Your task to perform on an android device: Search for razer thresher on newegg.com, select the first entry, add it to the cart, then select checkout. Image 0: 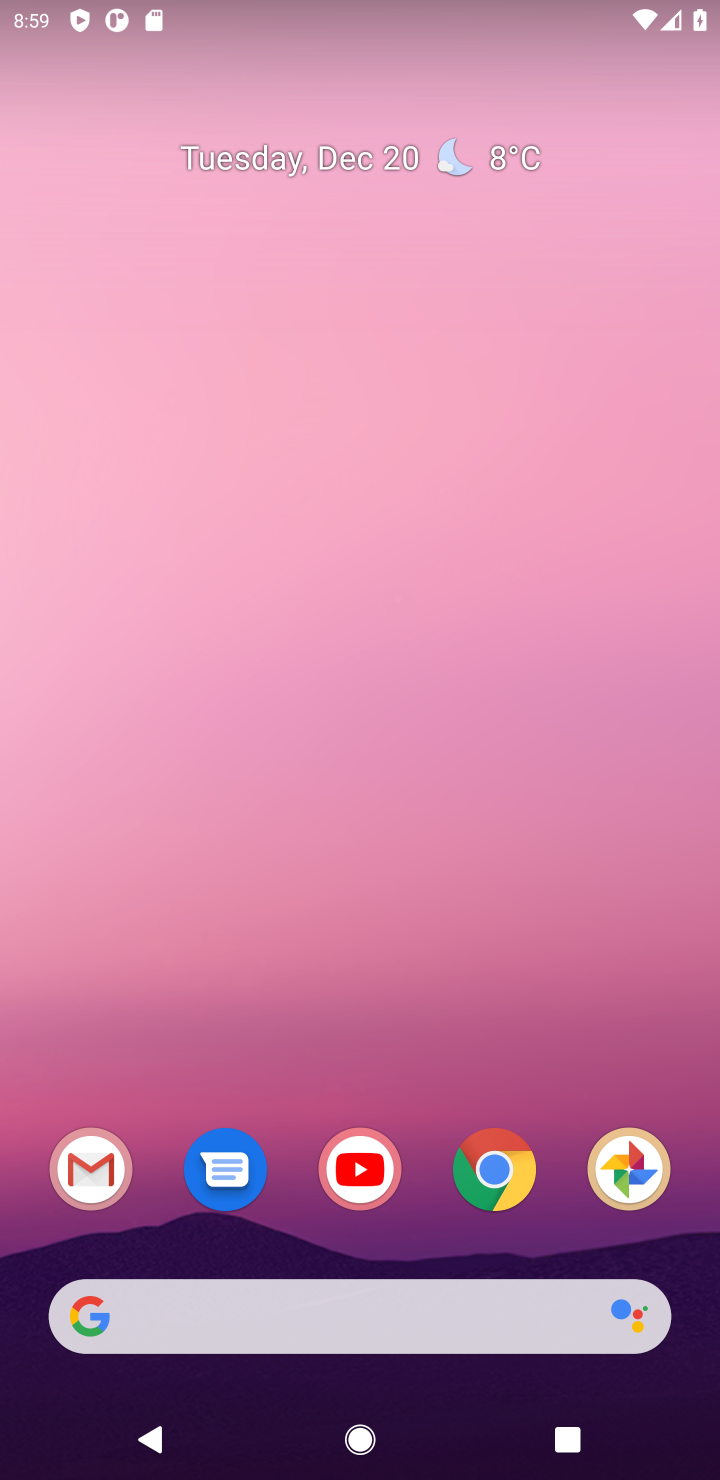
Step 0: click (483, 1156)
Your task to perform on an android device: Search for razer thresher on newegg.com, select the first entry, add it to the cart, then select checkout. Image 1: 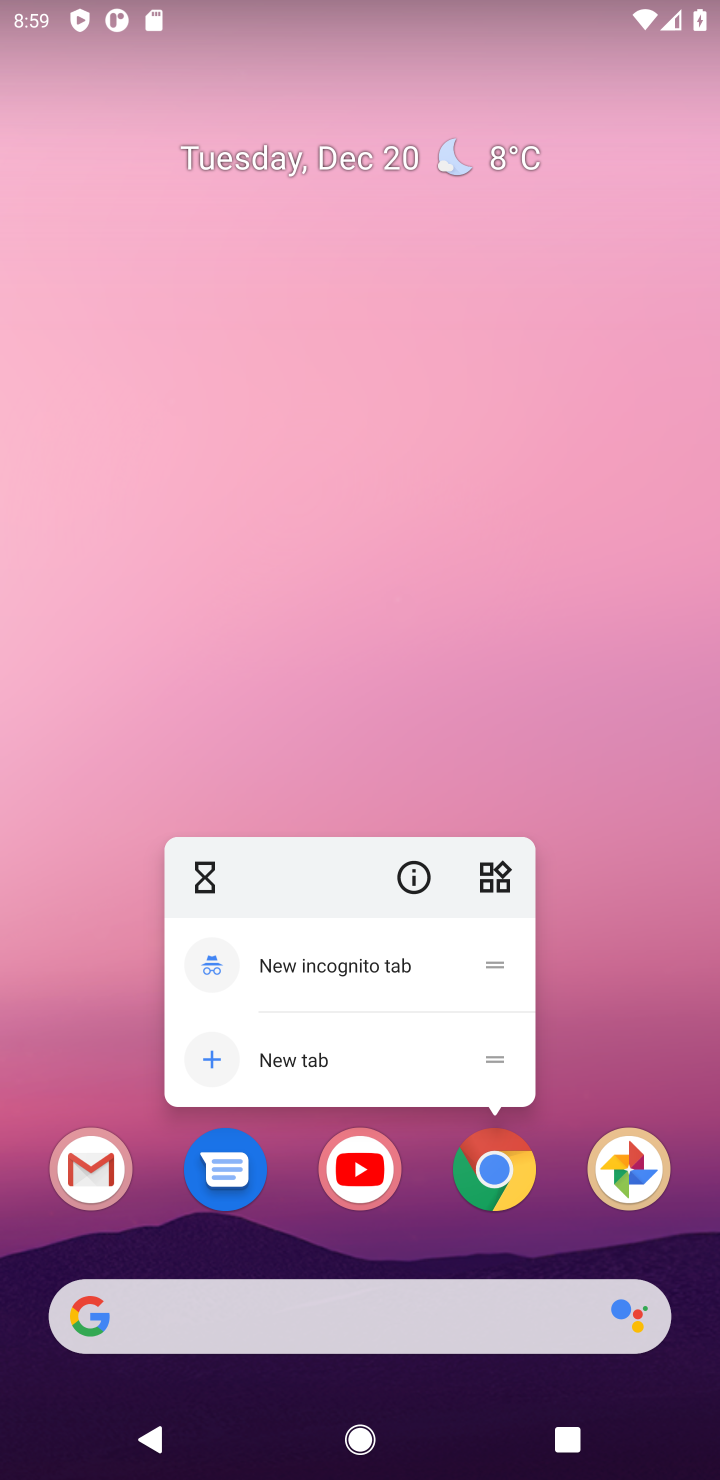
Step 1: click (483, 1156)
Your task to perform on an android device: Search for razer thresher on newegg.com, select the first entry, add it to the cart, then select checkout. Image 2: 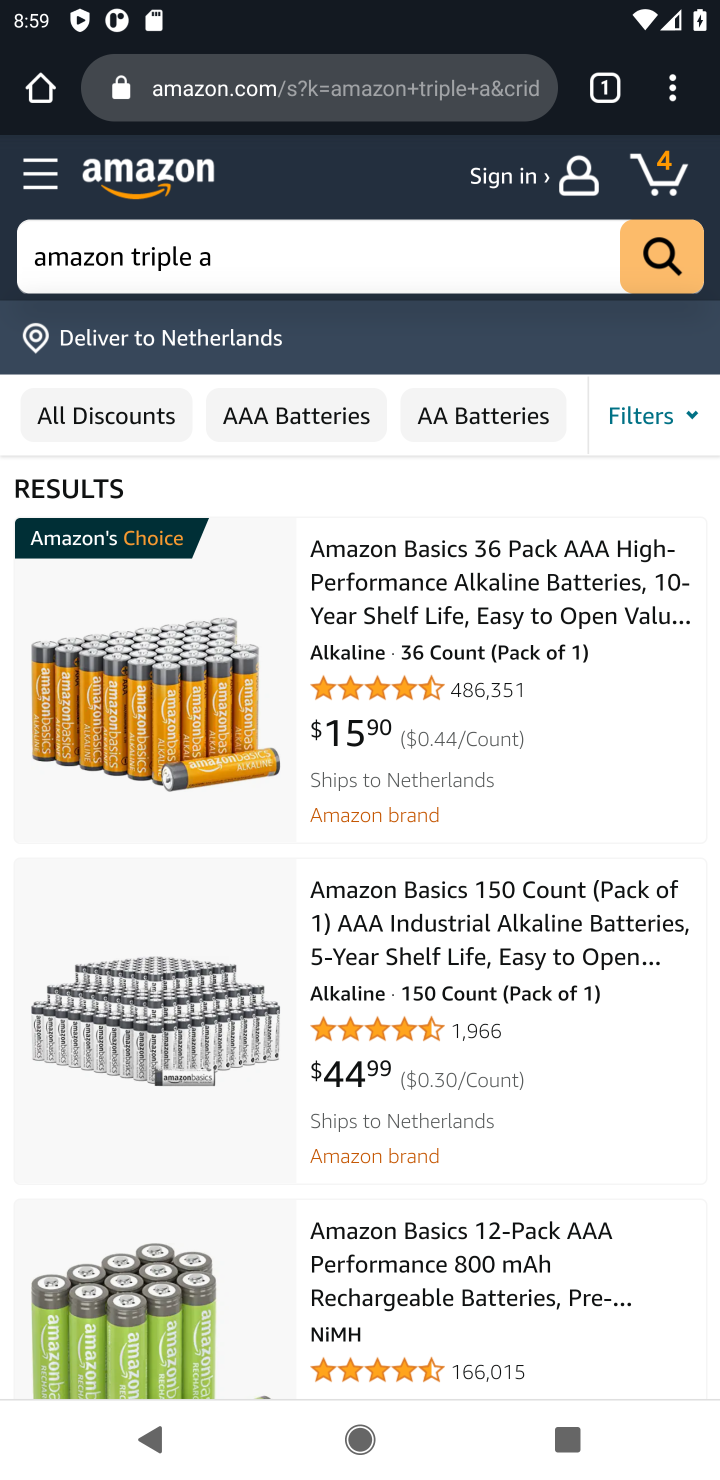
Step 2: click (435, 101)
Your task to perform on an android device: Search for razer thresher on newegg.com, select the first entry, add it to the cart, then select checkout. Image 3: 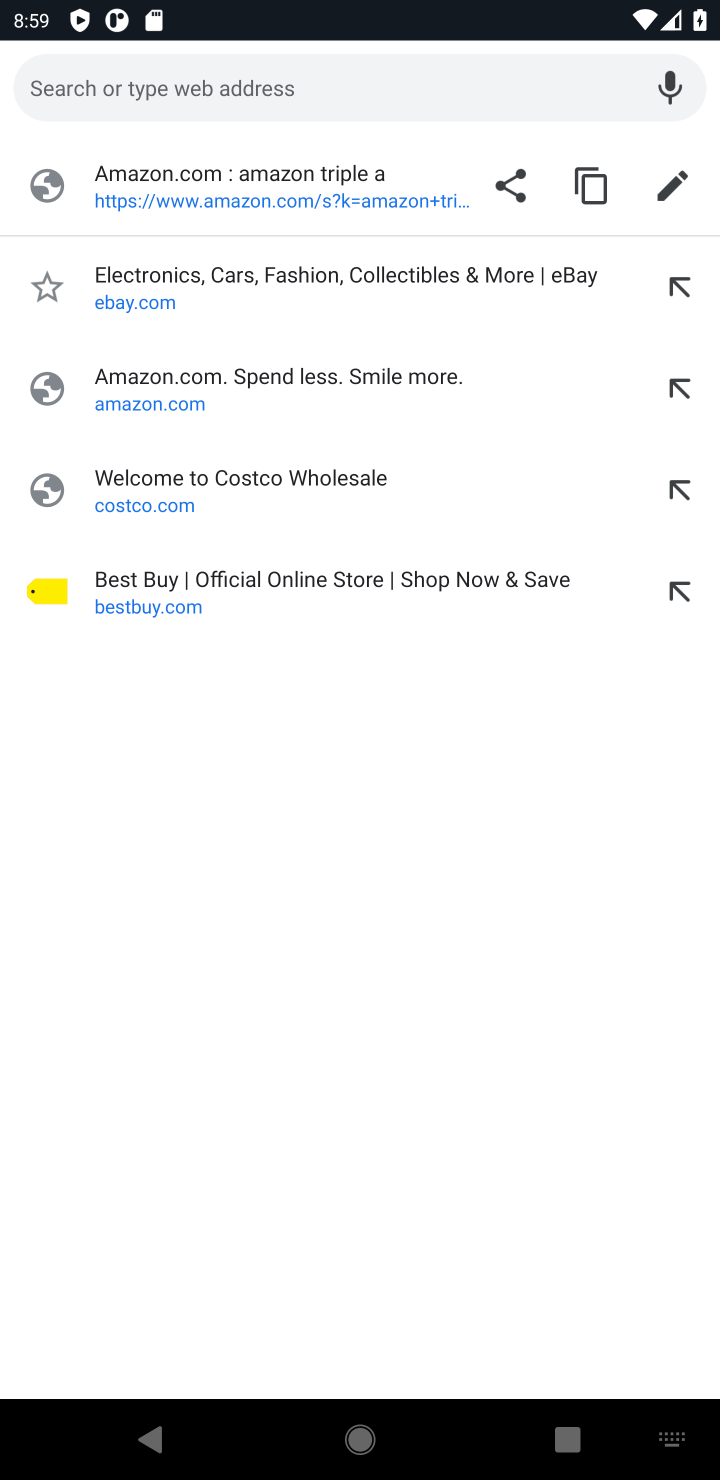
Step 3: type "newegg"
Your task to perform on an android device: Search for razer thresher on newegg.com, select the first entry, add it to the cart, then select checkout. Image 4: 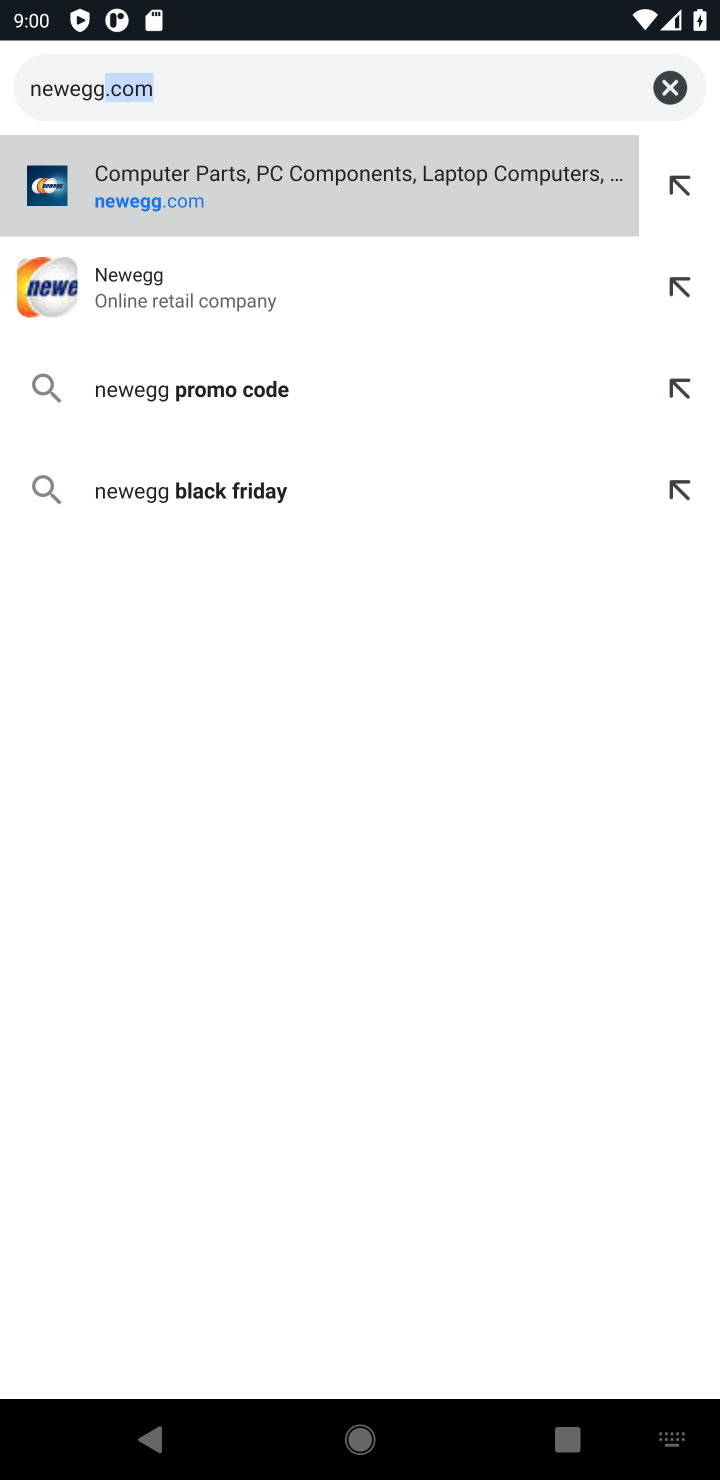
Step 4: click (270, 231)
Your task to perform on an android device: Search for razer thresher on newegg.com, select the first entry, add it to the cart, then select checkout. Image 5: 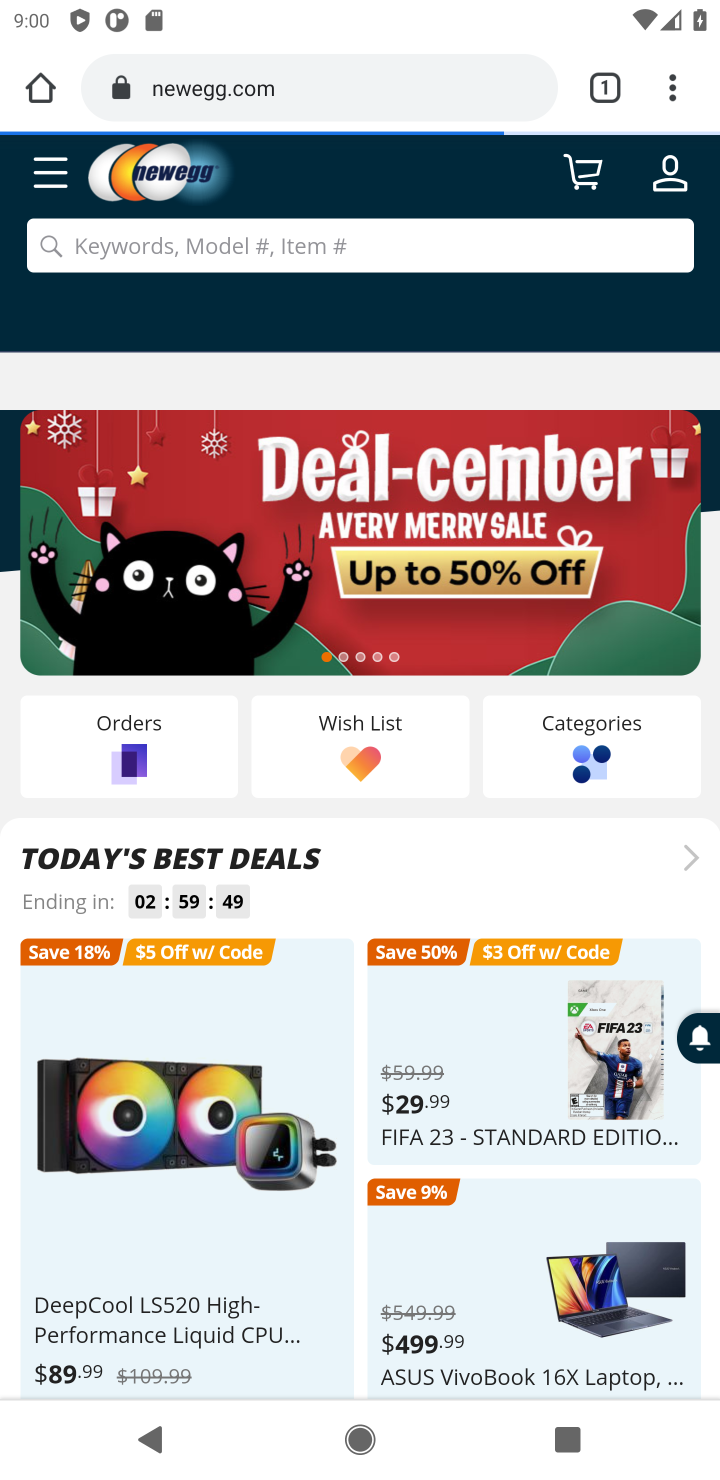
Step 5: click (258, 233)
Your task to perform on an android device: Search for razer thresher on newegg.com, select the first entry, add it to the cart, then select checkout. Image 6: 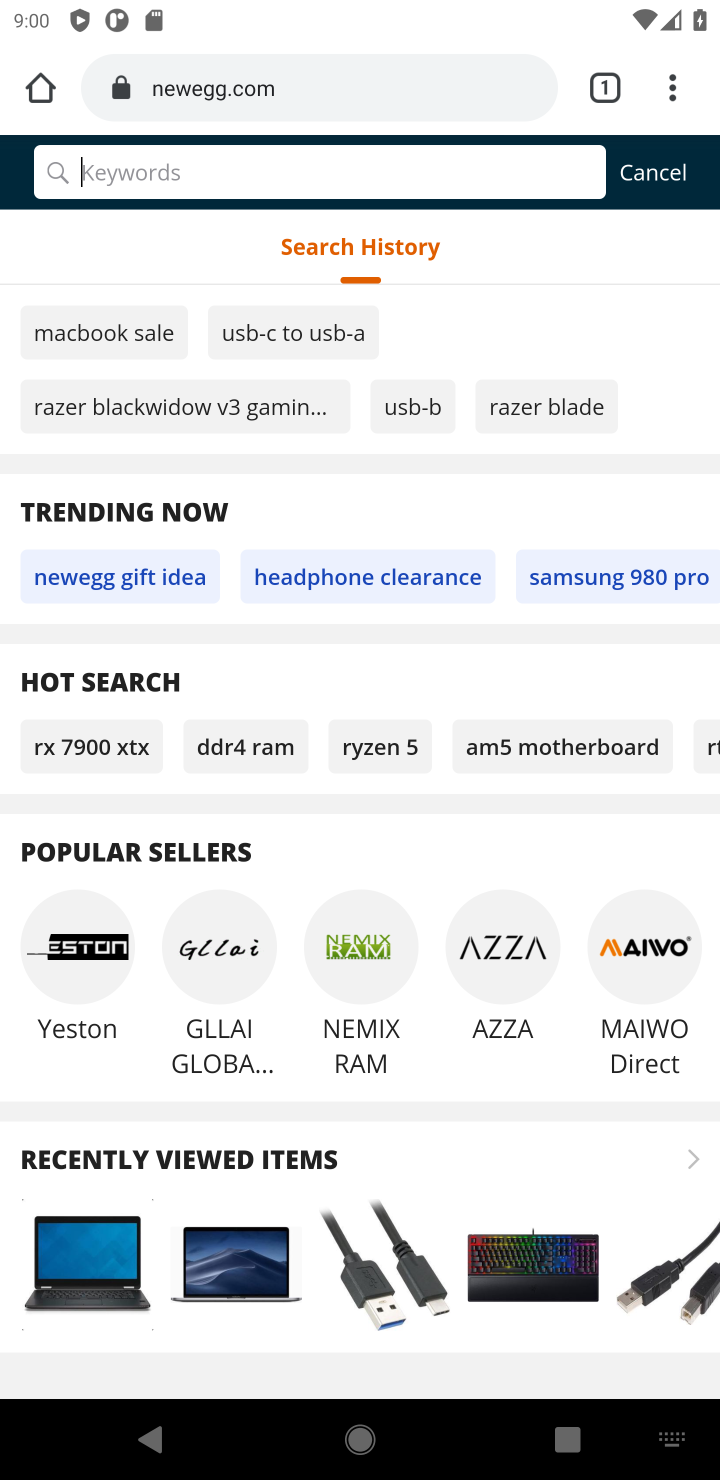
Step 6: type "razer thresher"
Your task to perform on an android device: Search for razer thresher on newegg.com, select the first entry, add it to the cart, then select checkout. Image 7: 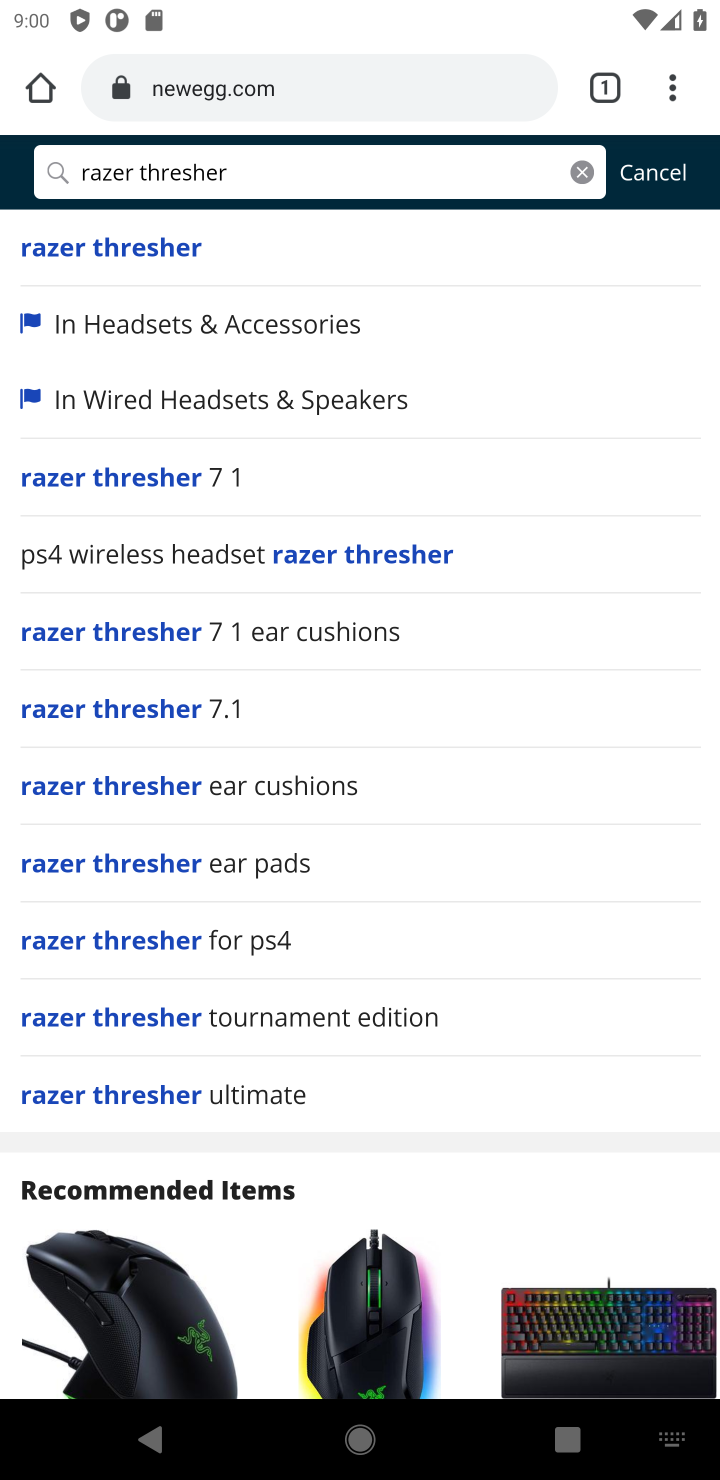
Step 7: click (160, 237)
Your task to perform on an android device: Search for razer thresher on newegg.com, select the first entry, add it to the cart, then select checkout. Image 8: 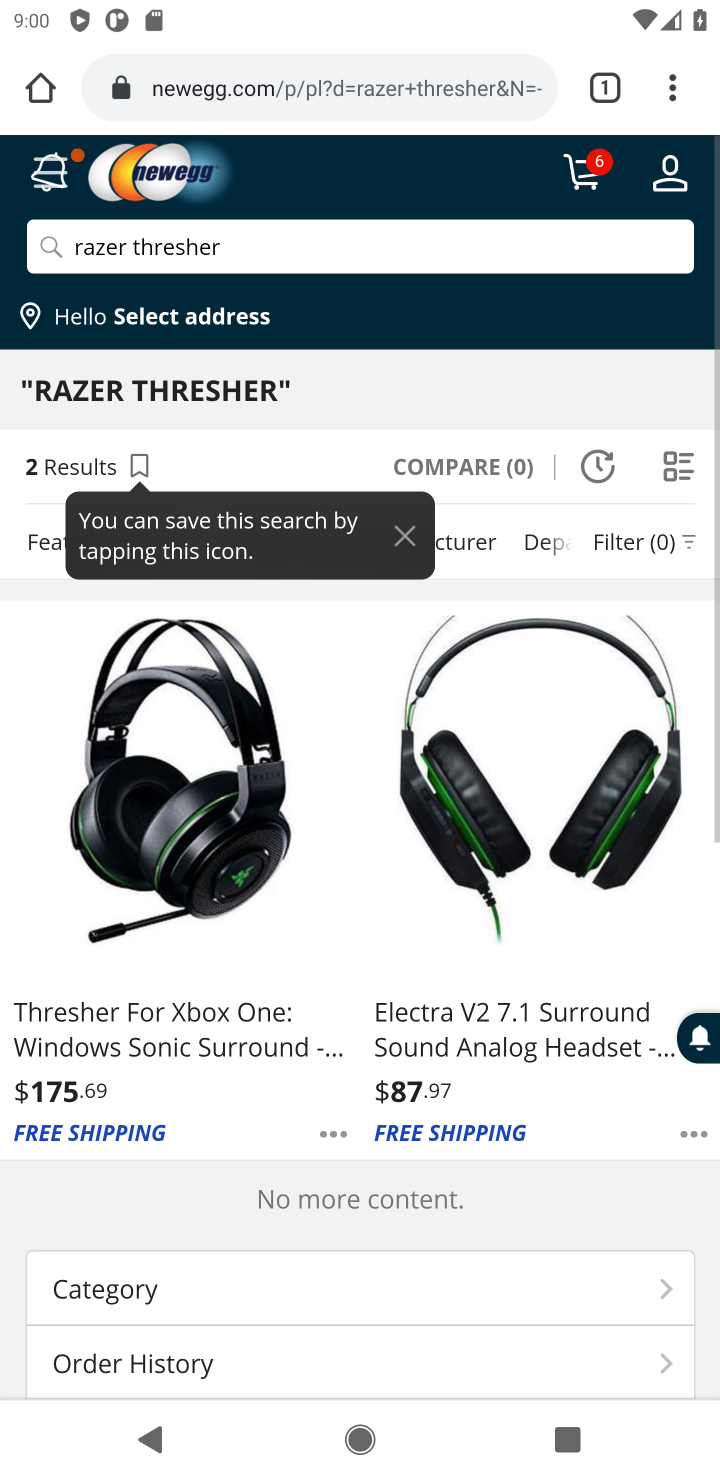
Step 8: click (175, 1034)
Your task to perform on an android device: Search for razer thresher on newegg.com, select the first entry, add it to the cart, then select checkout. Image 9: 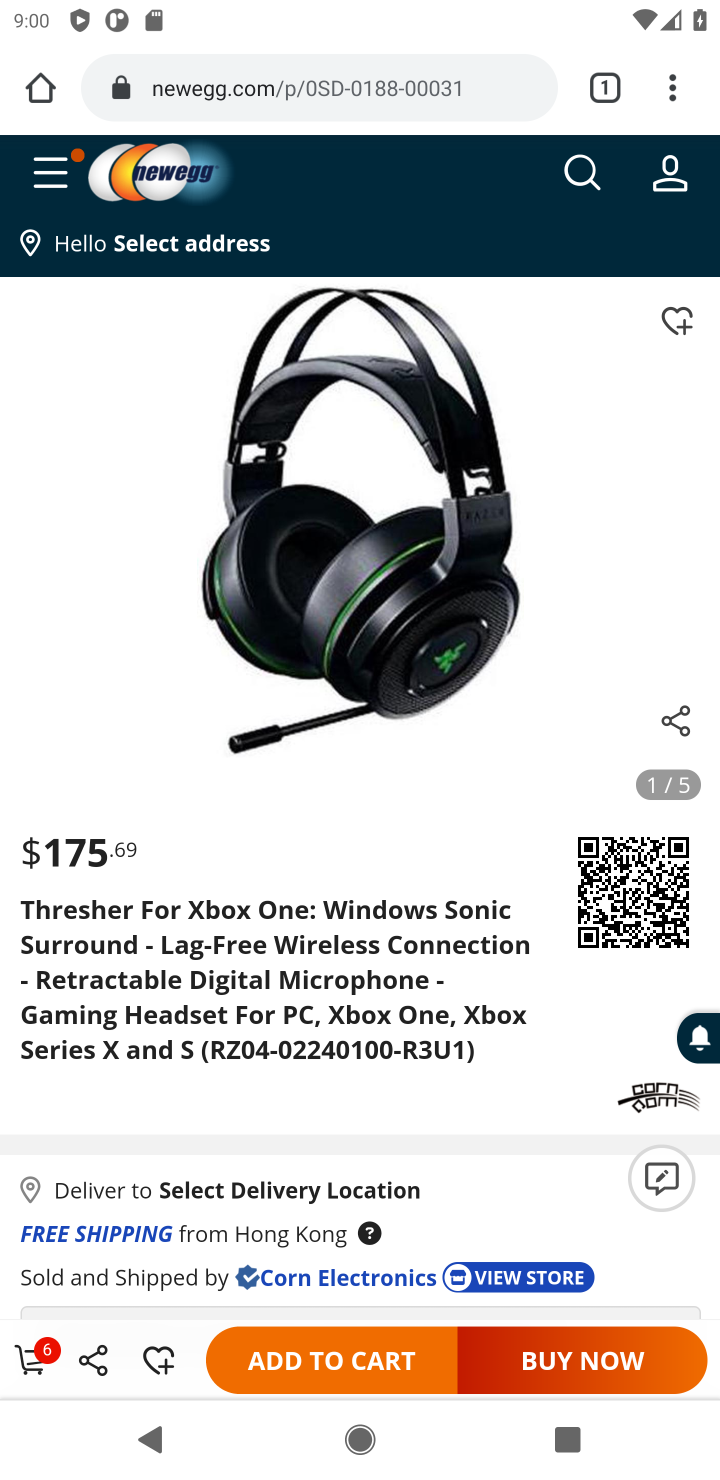
Step 9: click (369, 1378)
Your task to perform on an android device: Search for razer thresher on newegg.com, select the first entry, add it to the cart, then select checkout. Image 10: 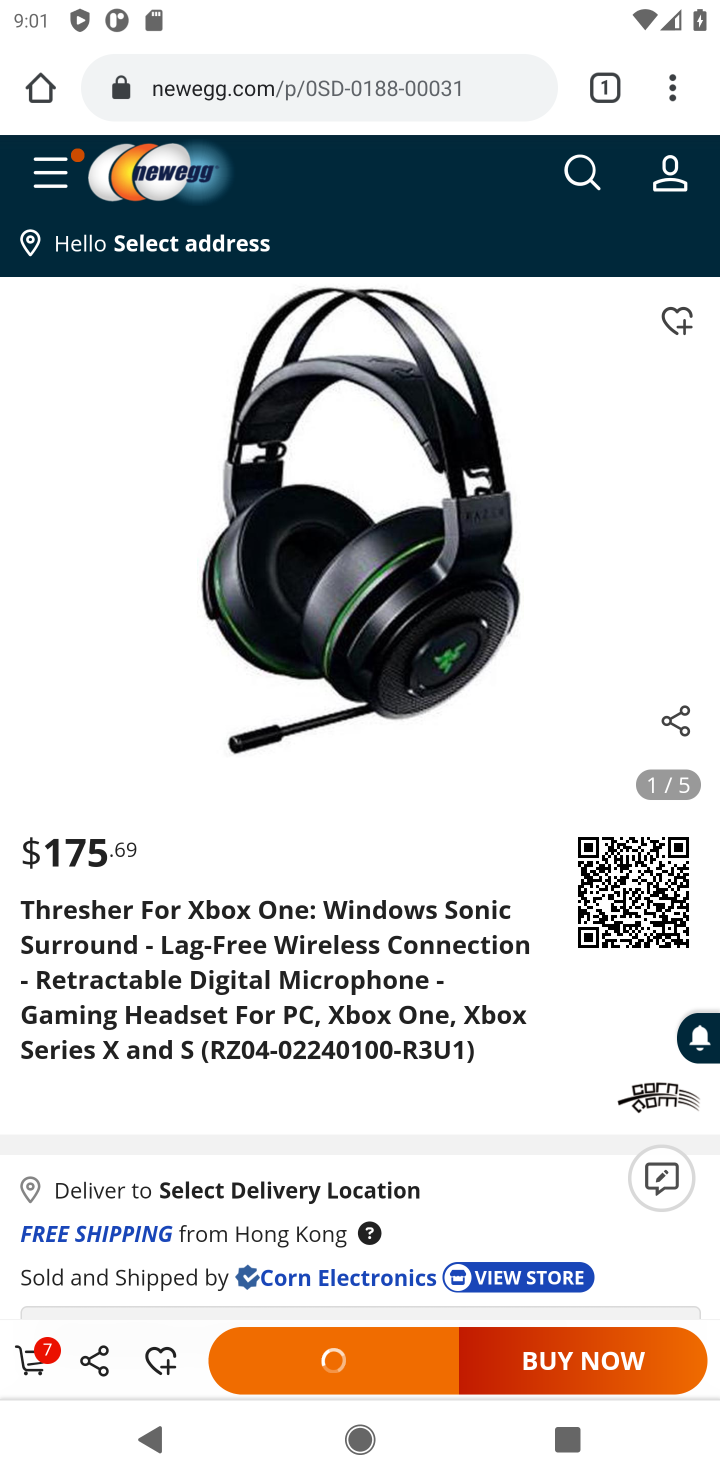
Step 10: task complete